Your task to perform on an android device: open app "Adobe Acrobat Reader: Edit PDF" (install if not already installed) Image 0: 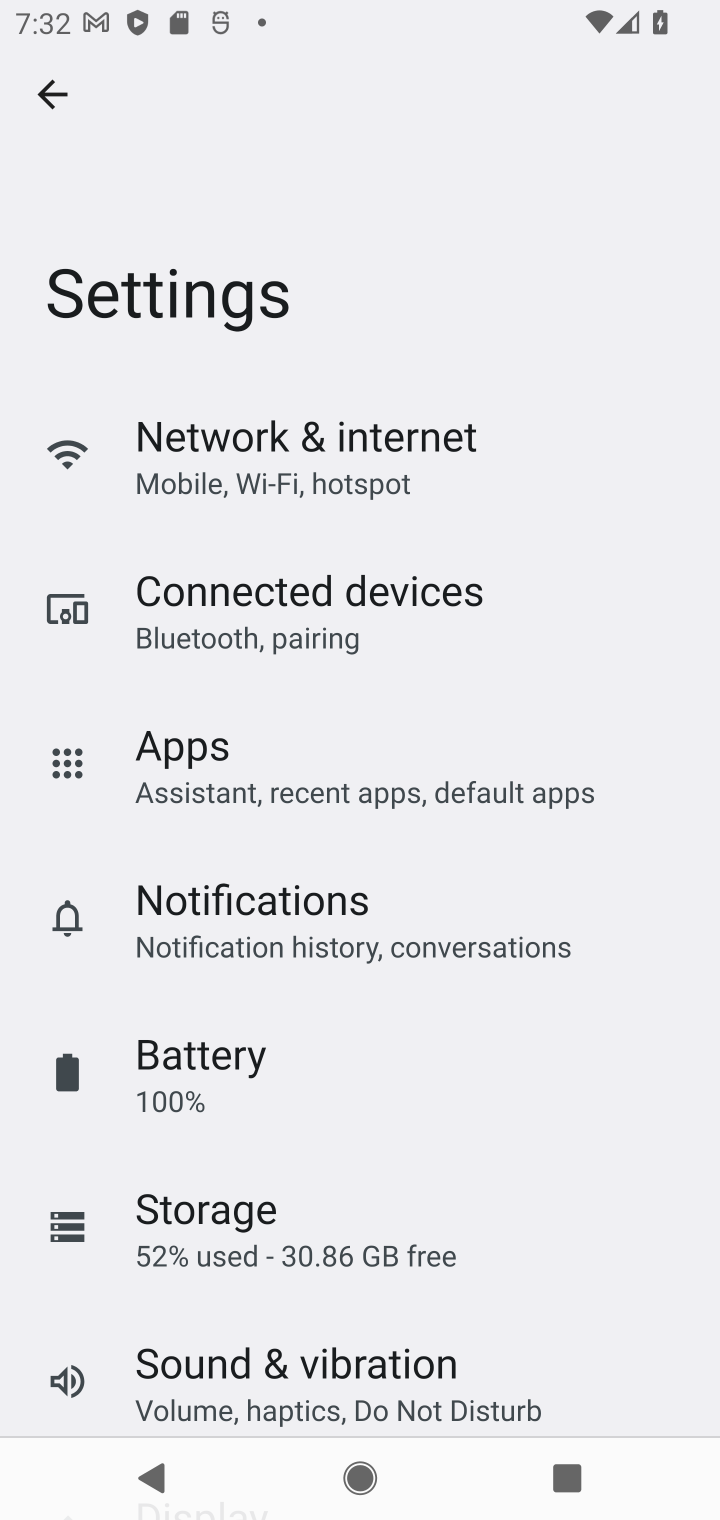
Step 0: press back button
Your task to perform on an android device: open app "Adobe Acrobat Reader: Edit PDF" (install if not already installed) Image 1: 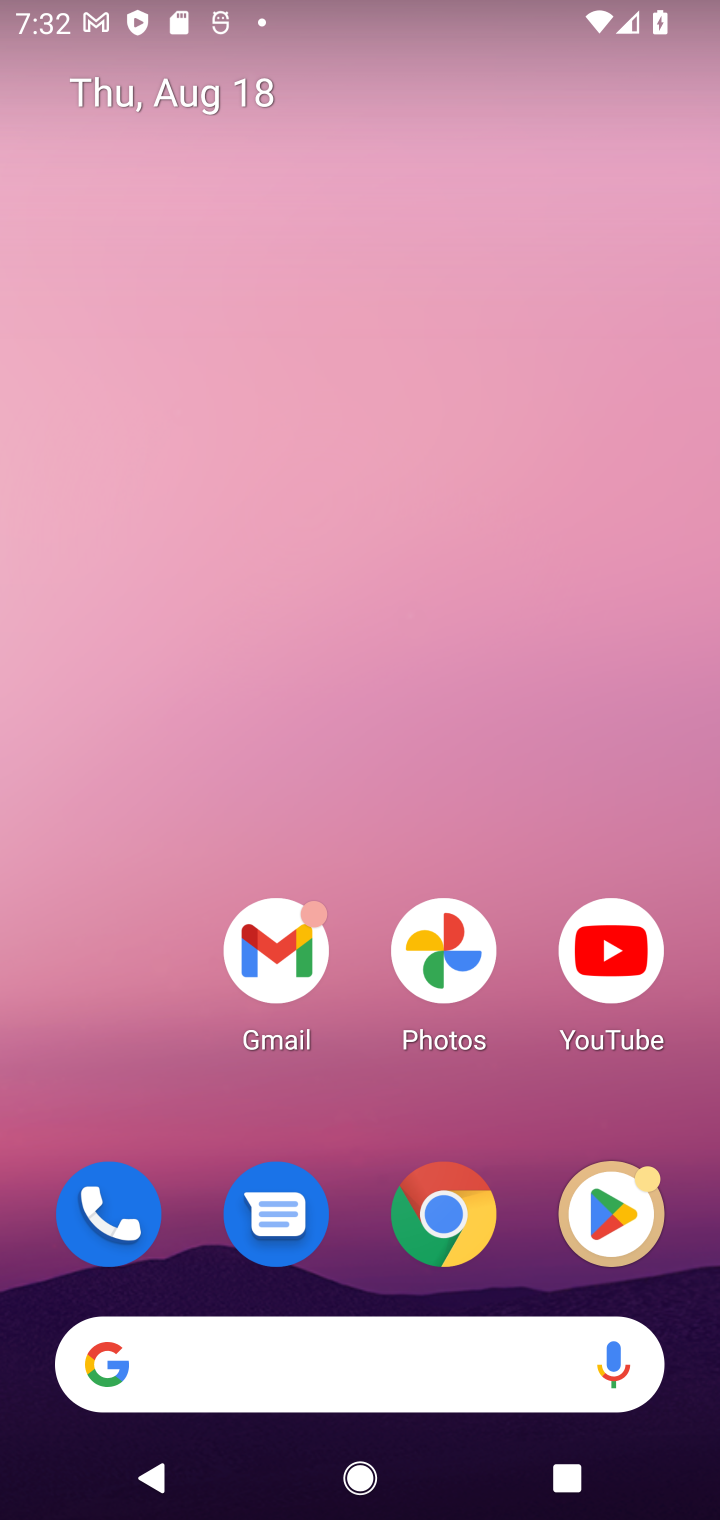
Step 1: click (615, 1202)
Your task to perform on an android device: open app "Adobe Acrobat Reader: Edit PDF" (install if not already installed) Image 2: 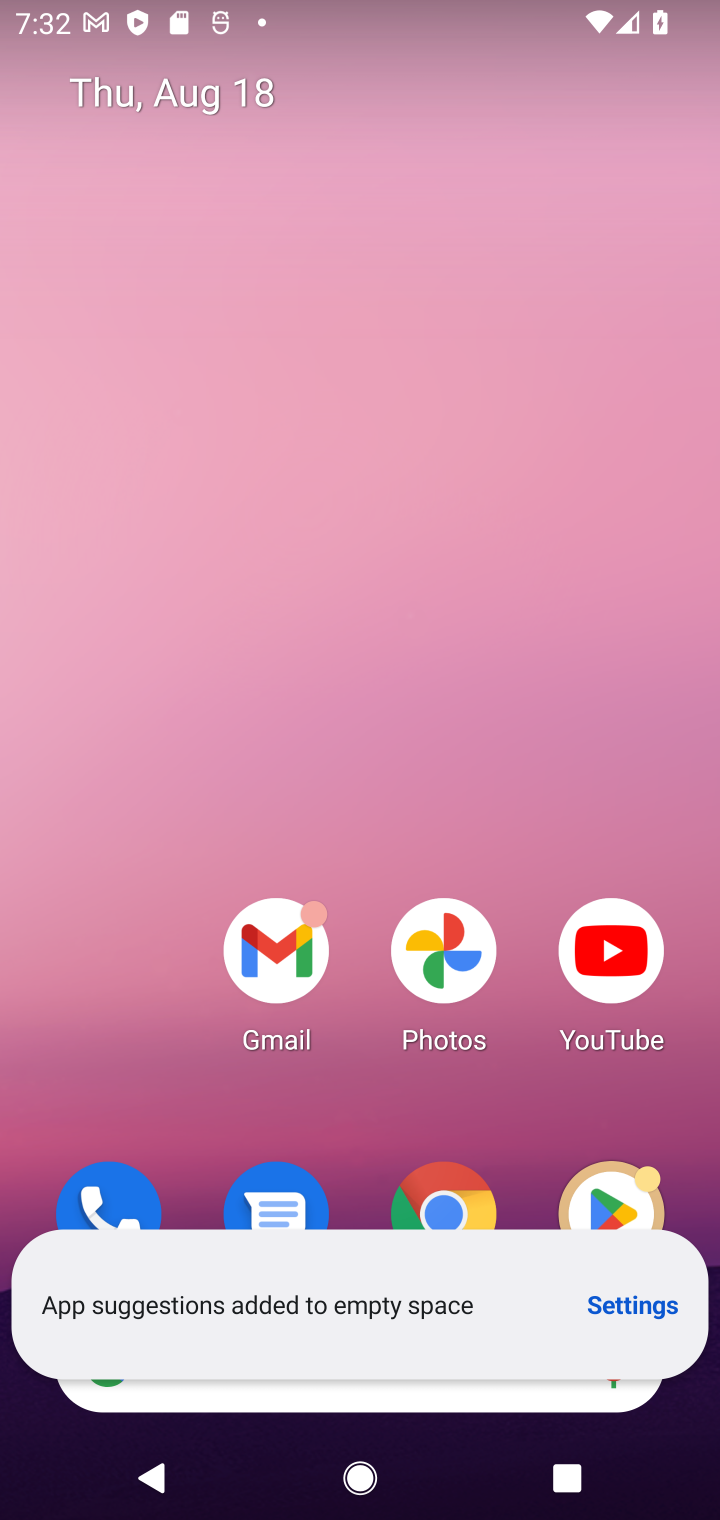
Step 2: click (602, 1195)
Your task to perform on an android device: open app "Adobe Acrobat Reader: Edit PDF" (install if not already installed) Image 3: 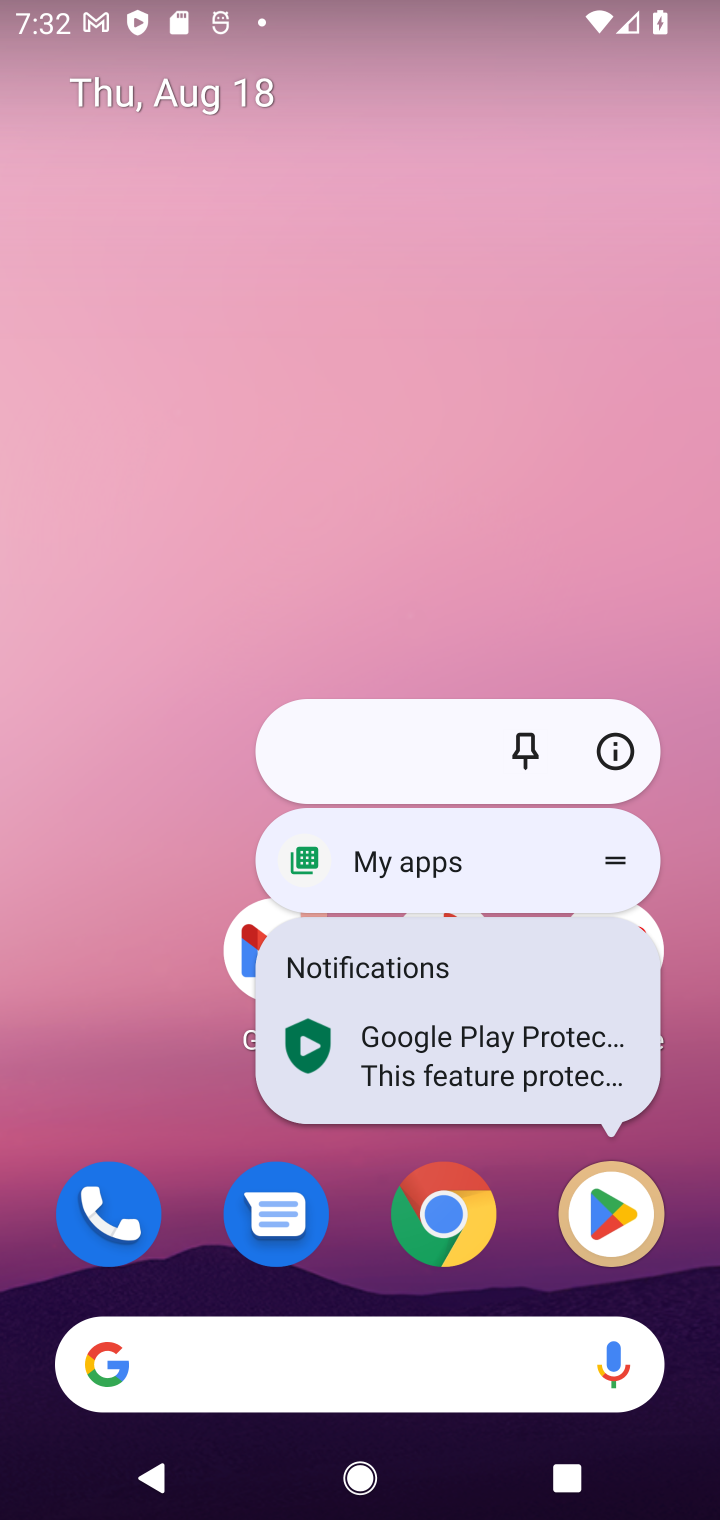
Step 3: click (602, 1189)
Your task to perform on an android device: open app "Adobe Acrobat Reader: Edit PDF" (install if not already installed) Image 4: 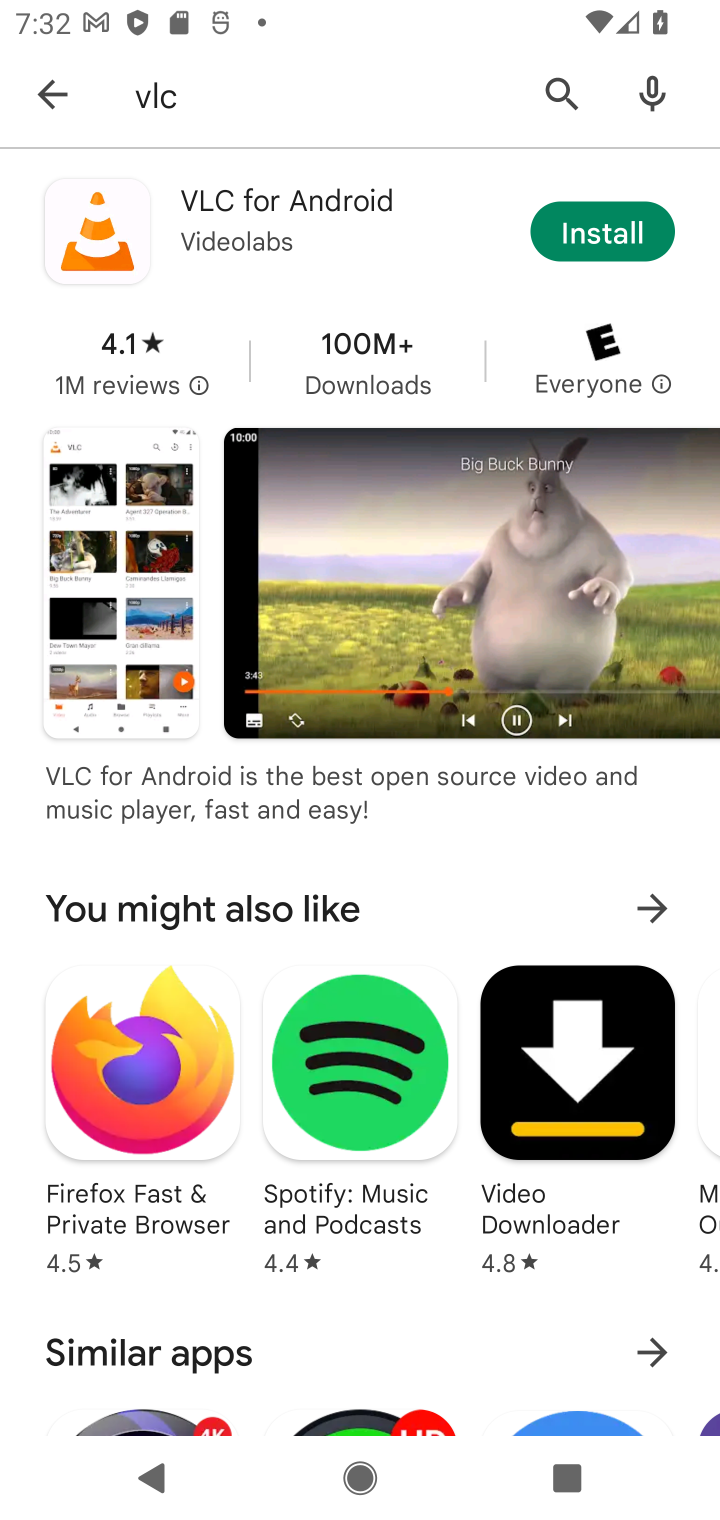
Step 4: click (552, 108)
Your task to perform on an android device: open app "Adobe Acrobat Reader: Edit PDF" (install if not already installed) Image 5: 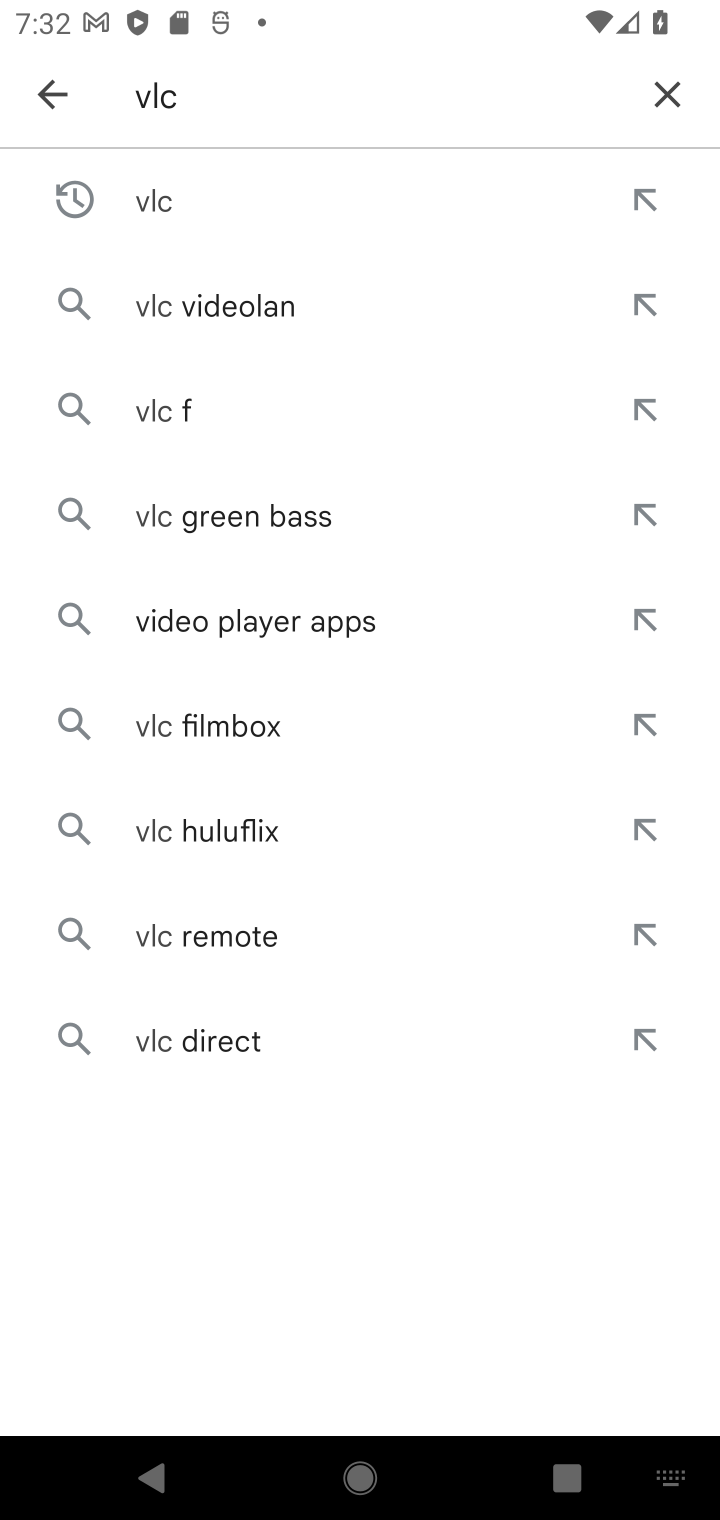
Step 5: click (656, 79)
Your task to perform on an android device: open app "Adobe Acrobat Reader: Edit PDF" (install if not already installed) Image 6: 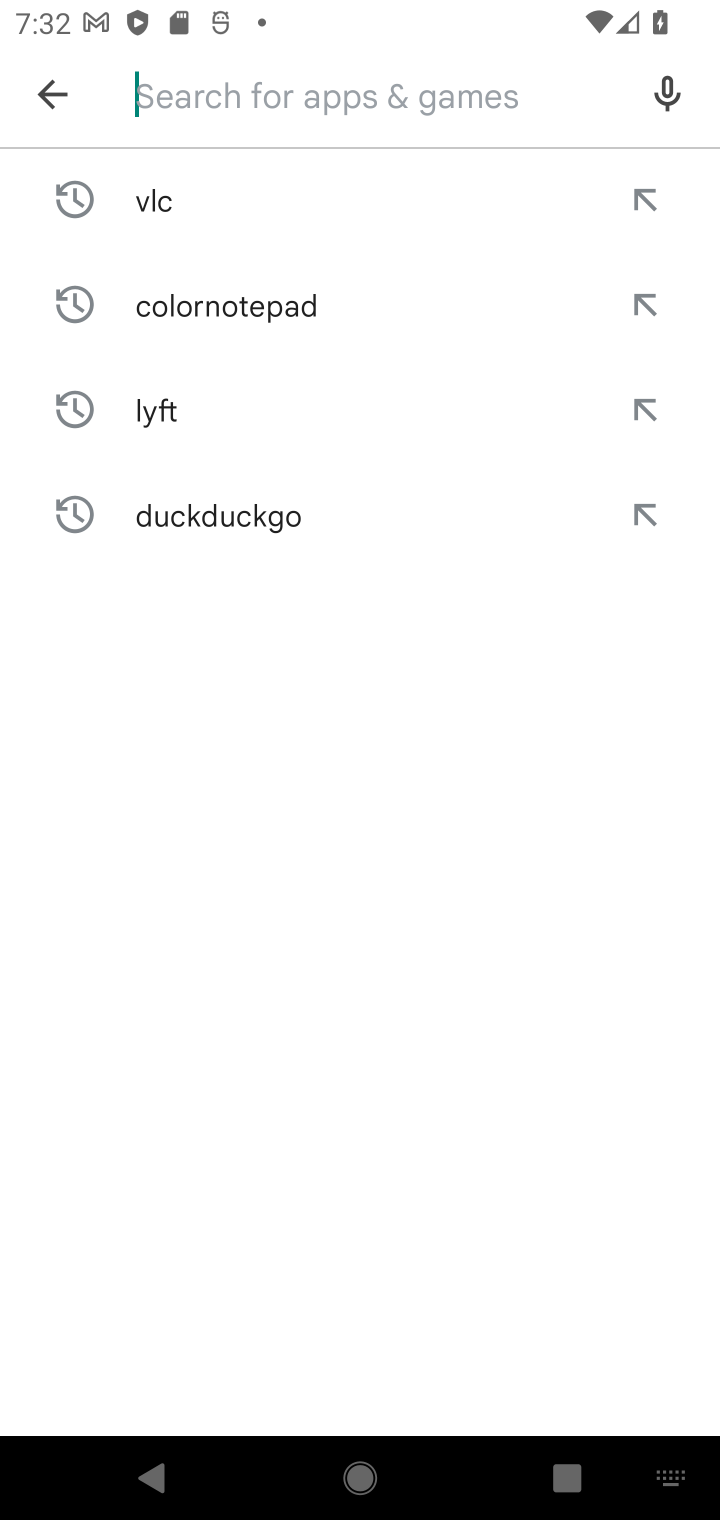
Step 6: click (235, 108)
Your task to perform on an android device: open app "Adobe Acrobat Reader: Edit PDF" (install if not already installed) Image 7: 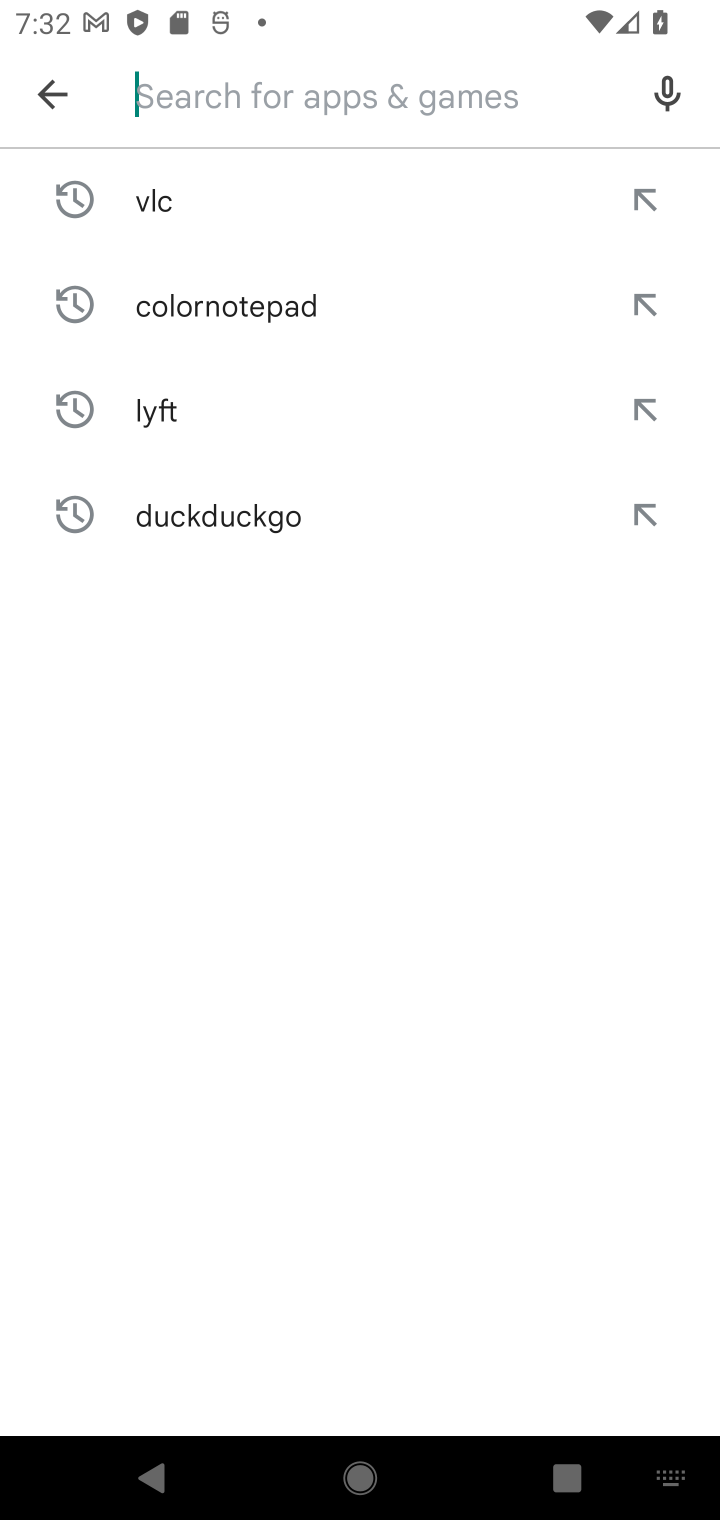
Step 7: type "adobe acrobat"
Your task to perform on an android device: open app "Adobe Acrobat Reader: Edit PDF" (install if not already installed) Image 8: 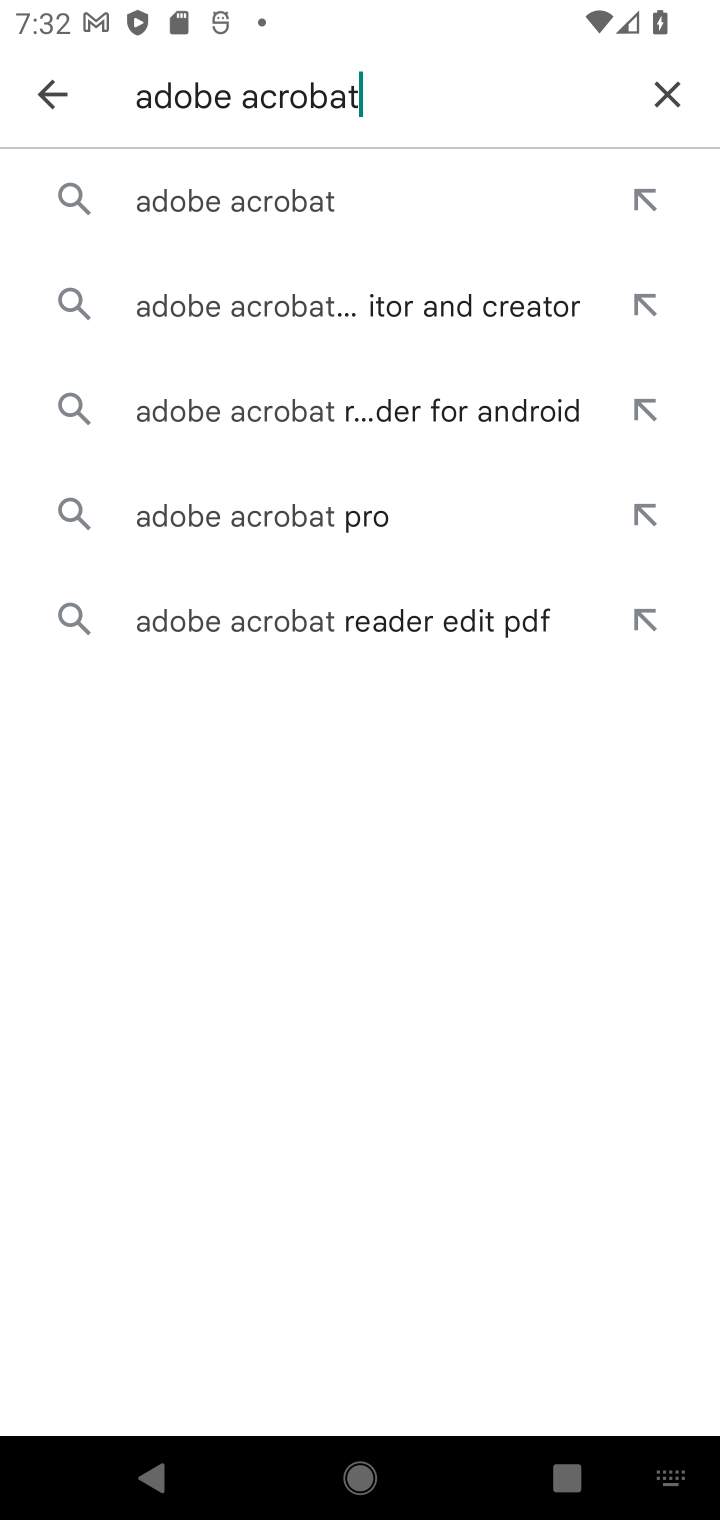
Step 8: click (279, 182)
Your task to perform on an android device: open app "Adobe Acrobat Reader: Edit PDF" (install if not already installed) Image 9: 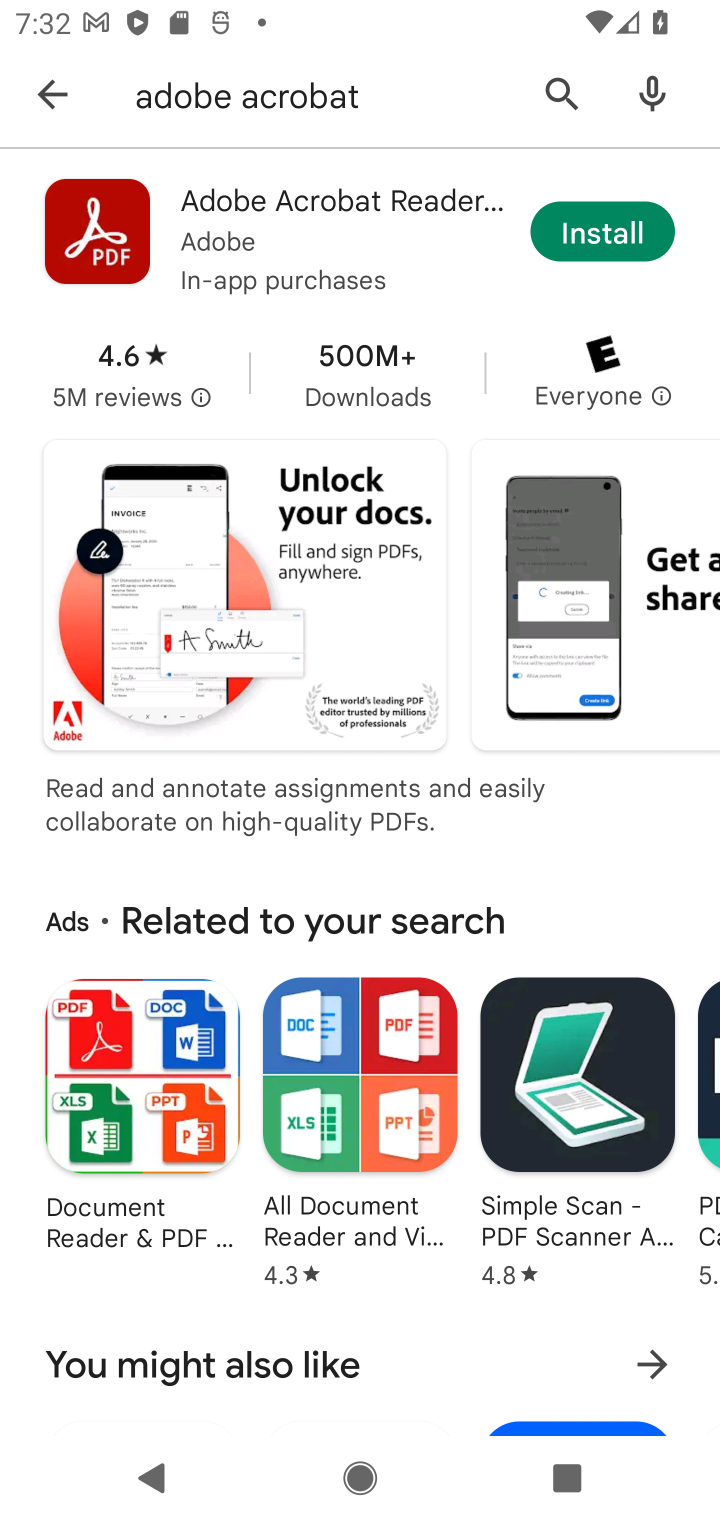
Step 9: click (616, 219)
Your task to perform on an android device: open app "Adobe Acrobat Reader: Edit PDF" (install if not already installed) Image 10: 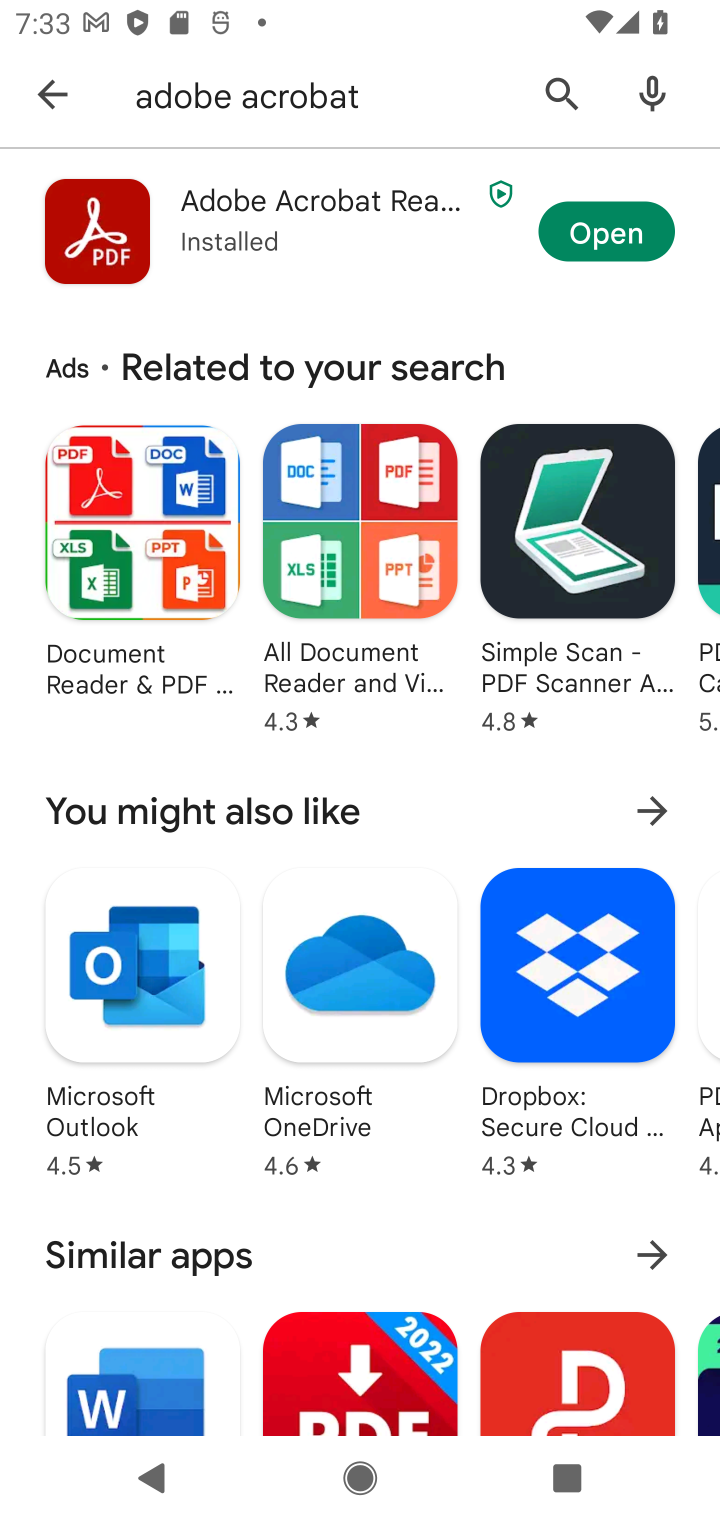
Step 10: click (598, 243)
Your task to perform on an android device: open app "Adobe Acrobat Reader: Edit PDF" (install if not already installed) Image 11: 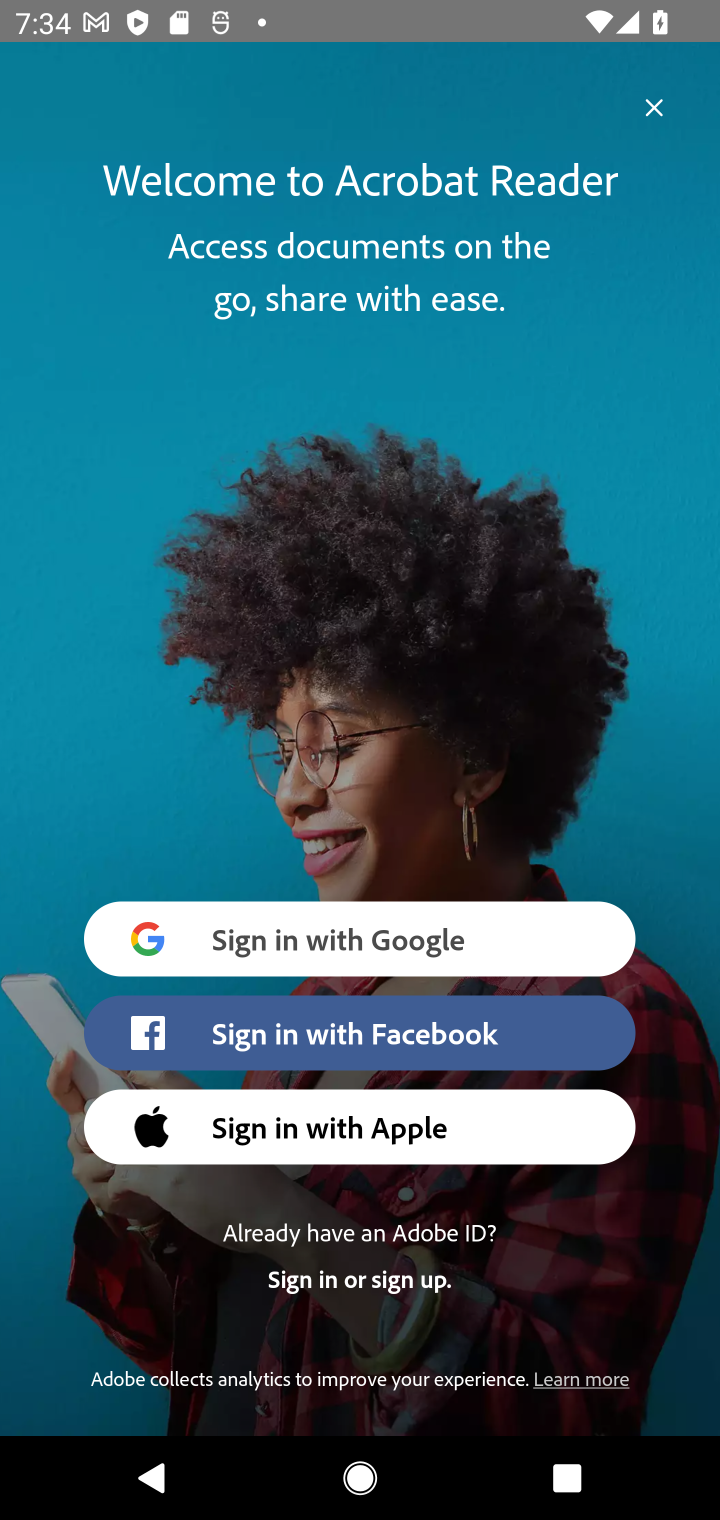
Step 11: task complete